Your task to perform on an android device: change notification settings in the gmail app Image 0: 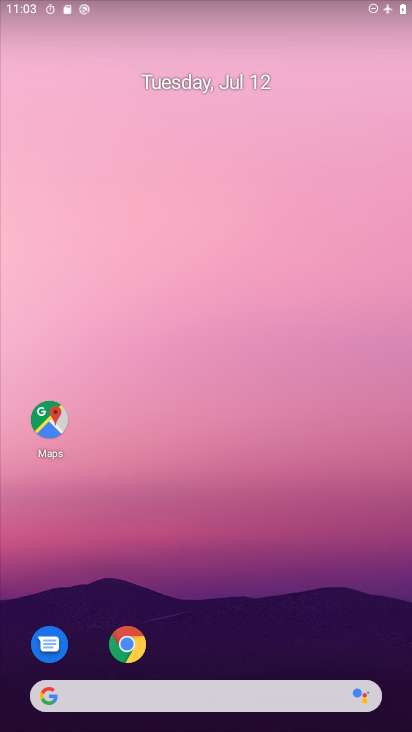
Step 0: drag from (230, 658) to (230, 168)
Your task to perform on an android device: change notification settings in the gmail app Image 1: 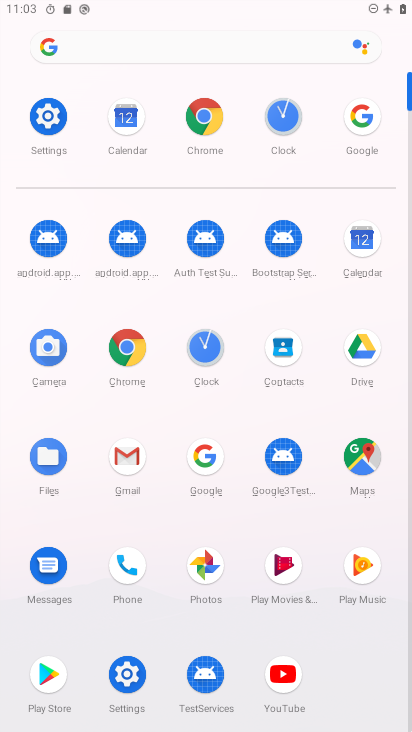
Step 1: click (121, 466)
Your task to perform on an android device: change notification settings in the gmail app Image 2: 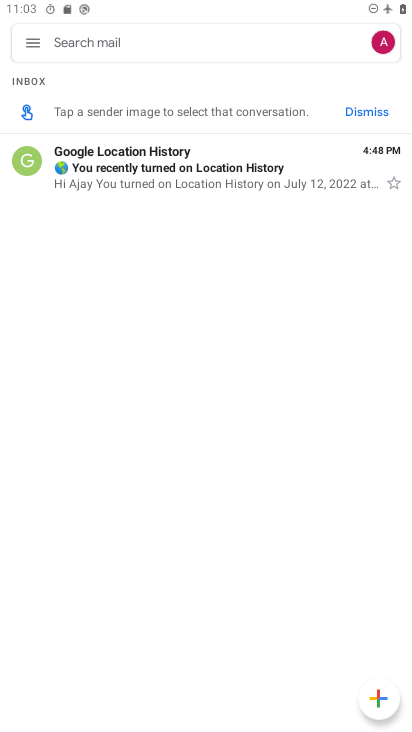
Step 2: click (26, 43)
Your task to perform on an android device: change notification settings in the gmail app Image 3: 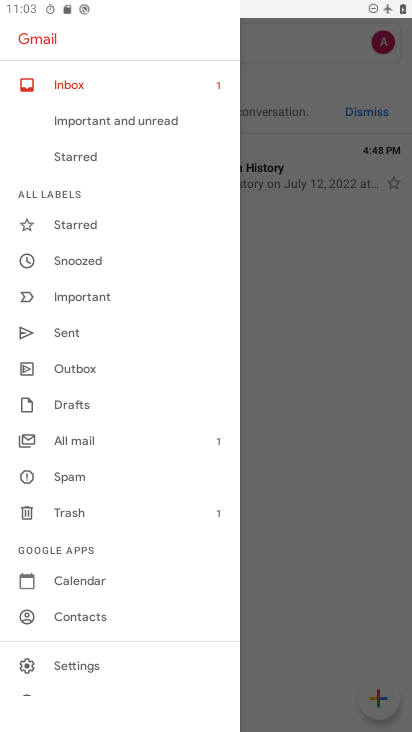
Step 3: click (112, 655)
Your task to perform on an android device: change notification settings in the gmail app Image 4: 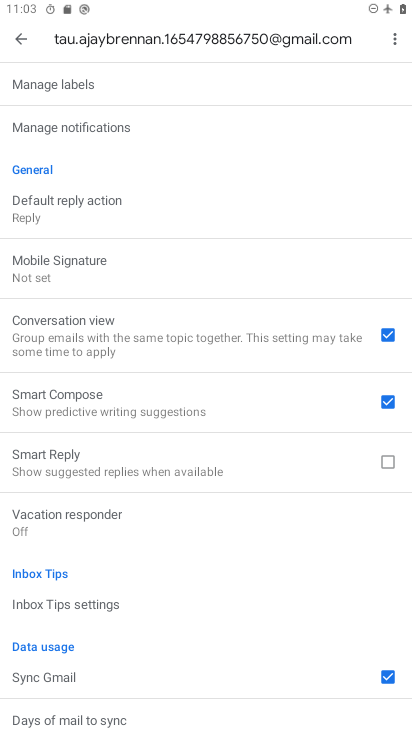
Step 4: click (163, 123)
Your task to perform on an android device: change notification settings in the gmail app Image 5: 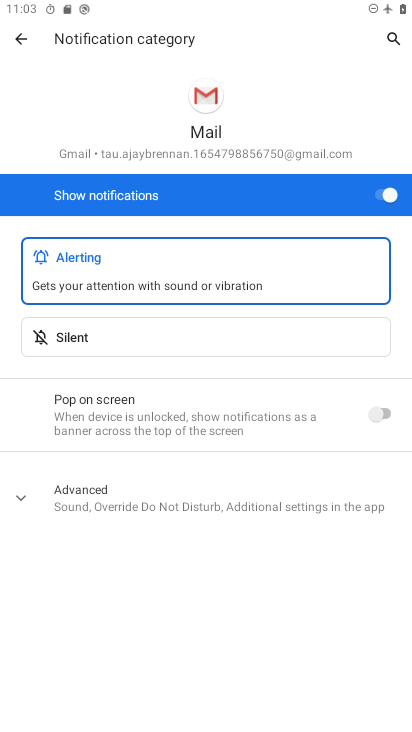
Step 5: click (368, 198)
Your task to perform on an android device: change notification settings in the gmail app Image 6: 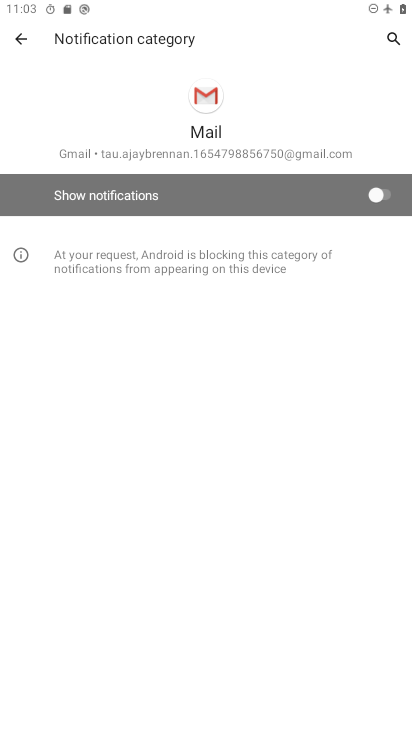
Step 6: task complete